Your task to perform on an android device: toggle priority inbox in the gmail app Image 0: 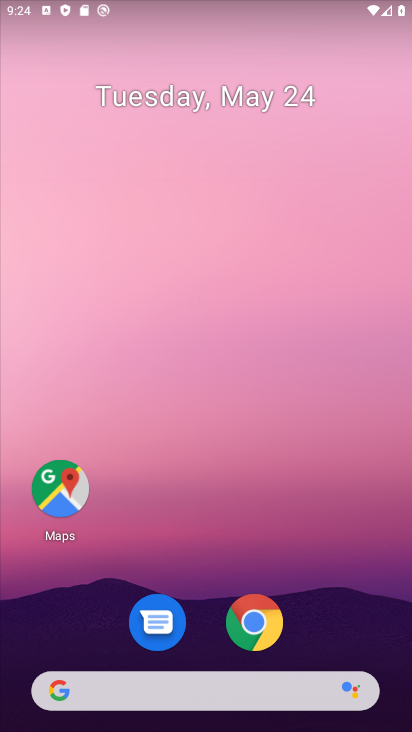
Step 0: press home button
Your task to perform on an android device: toggle priority inbox in the gmail app Image 1: 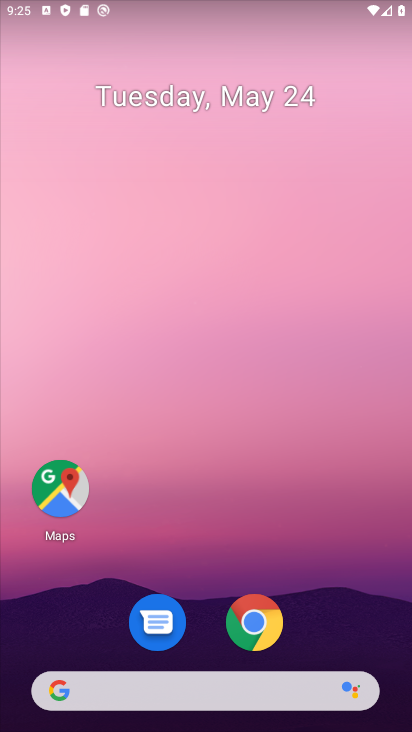
Step 1: drag from (238, 715) to (300, 114)
Your task to perform on an android device: toggle priority inbox in the gmail app Image 2: 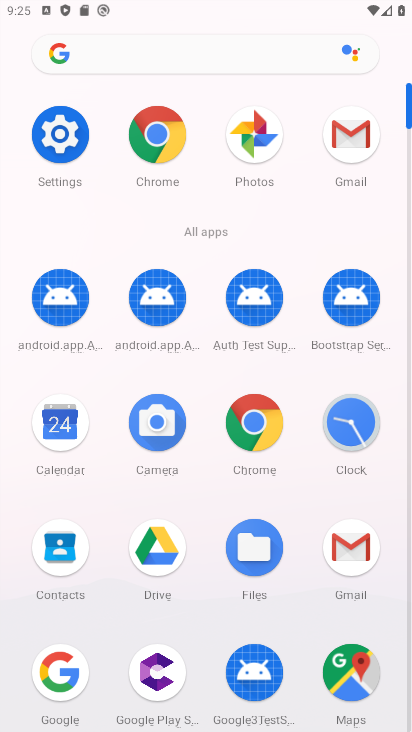
Step 2: click (344, 146)
Your task to perform on an android device: toggle priority inbox in the gmail app Image 3: 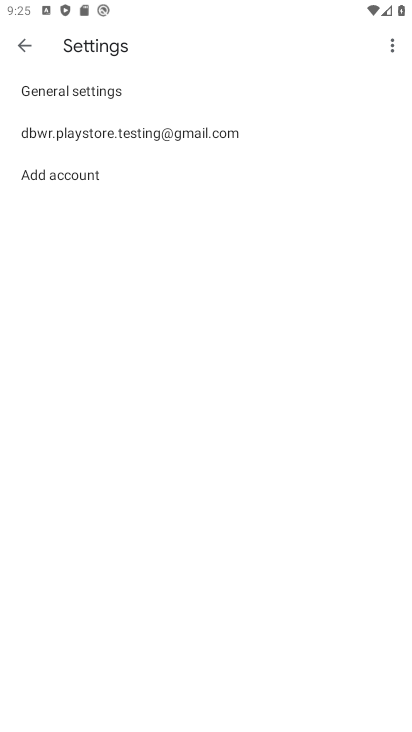
Step 3: click (128, 131)
Your task to perform on an android device: toggle priority inbox in the gmail app Image 4: 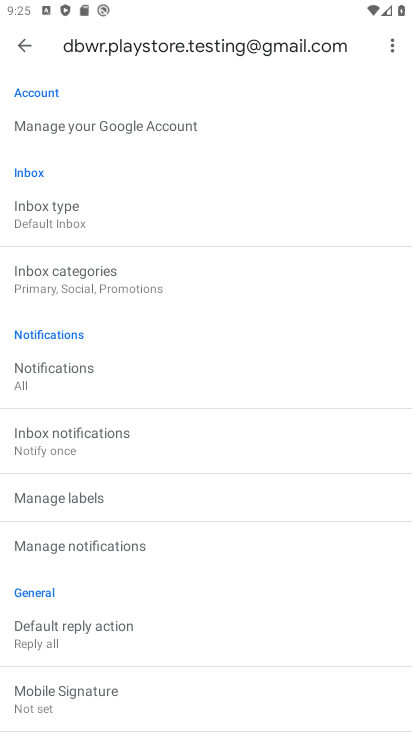
Step 4: click (116, 217)
Your task to perform on an android device: toggle priority inbox in the gmail app Image 5: 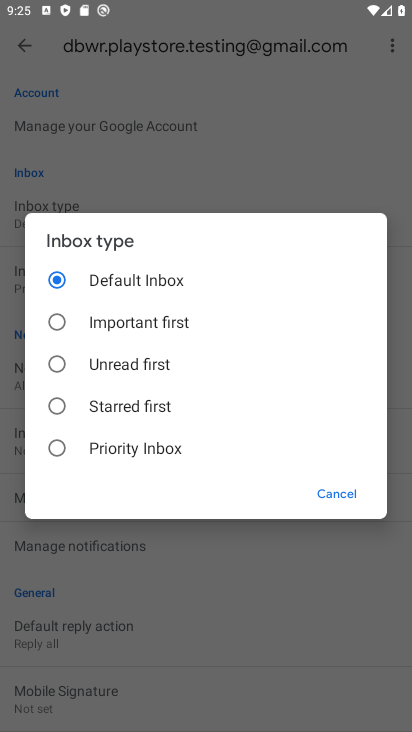
Step 5: task complete